Your task to perform on an android device: open app "Booking.com: Hotels and more" Image 0: 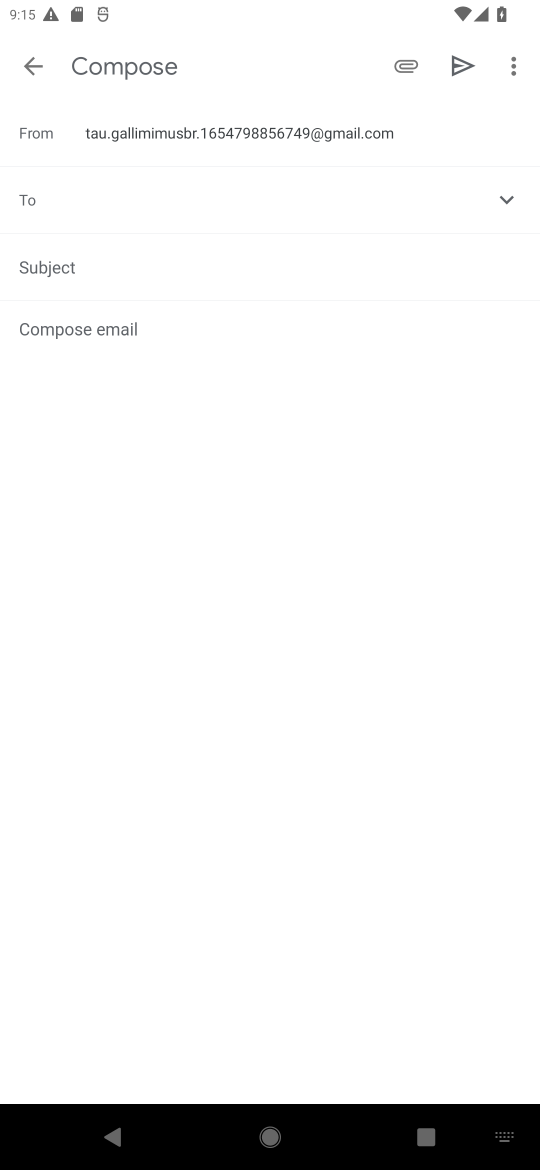
Step 0: press home button
Your task to perform on an android device: open app "Booking.com: Hotels and more" Image 1: 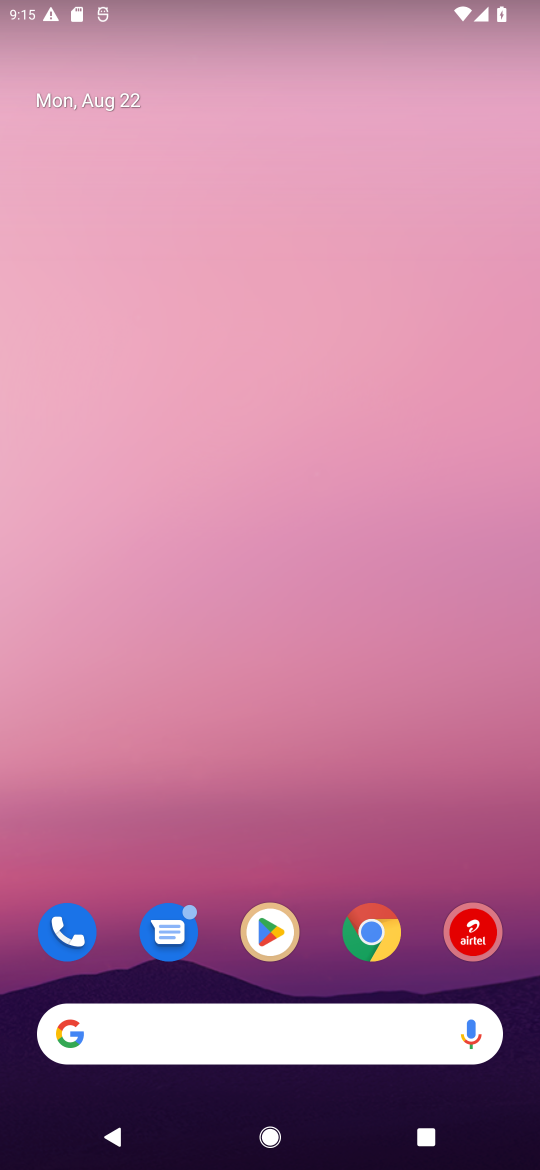
Step 1: click (272, 948)
Your task to perform on an android device: open app "Booking.com: Hotels and more" Image 2: 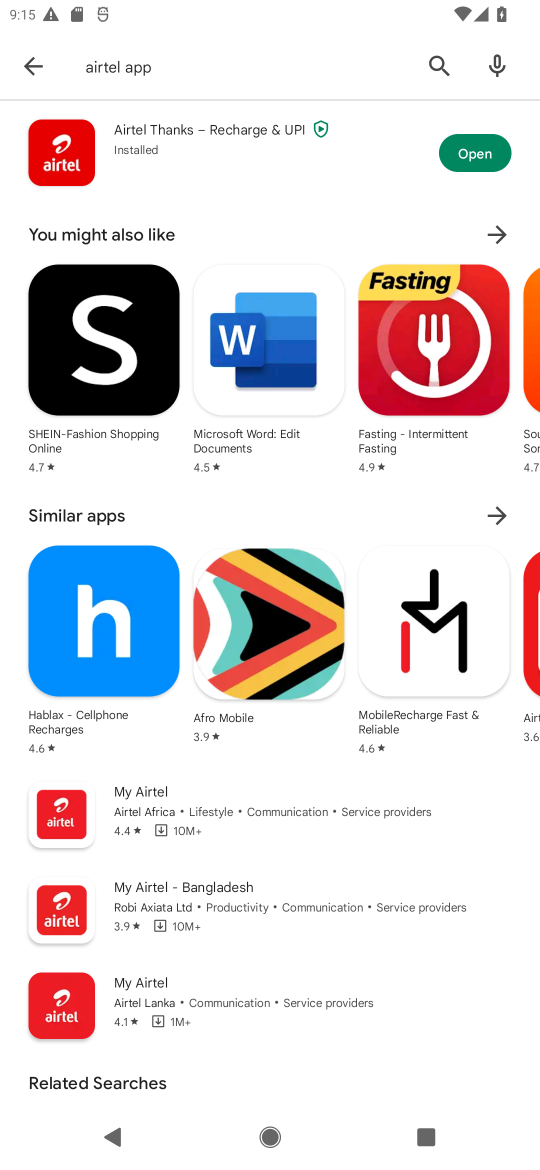
Step 2: click (456, 64)
Your task to perform on an android device: open app "Booking.com: Hotels and more" Image 3: 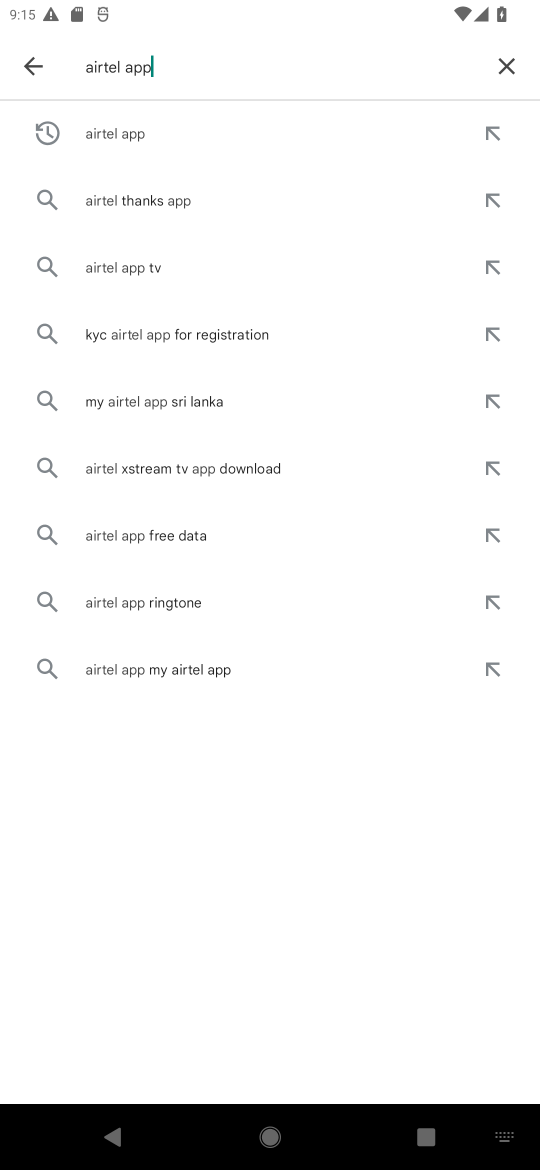
Step 3: click (489, 61)
Your task to perform on an android device: open app "Booking.com: Hotels and more" Image 4: 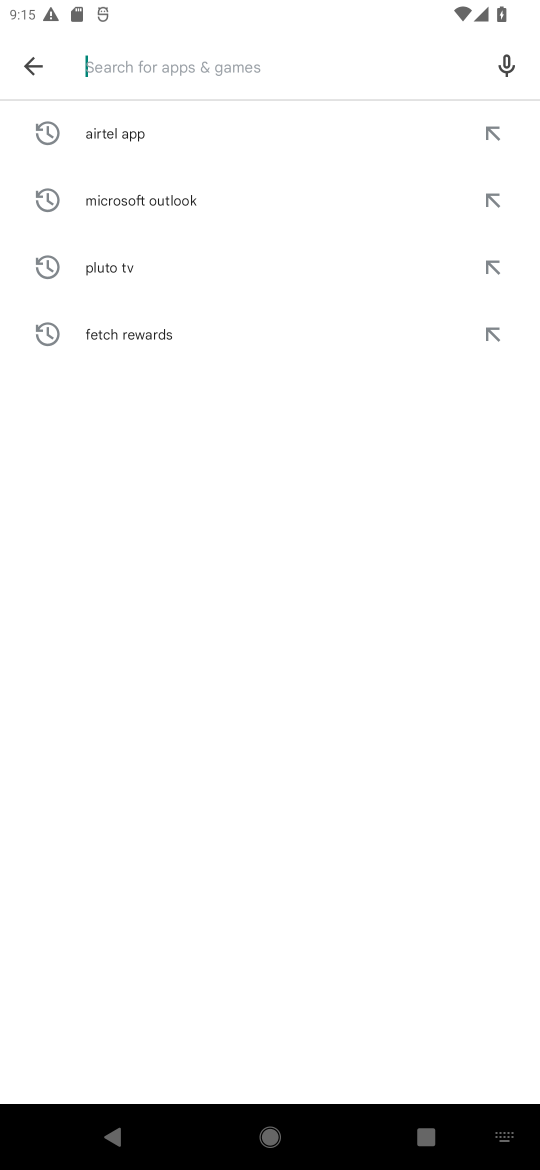
Step 4: type "booking"
Your task to perform on an android device: open app "Booking.com: Hotels and more" Image 5: 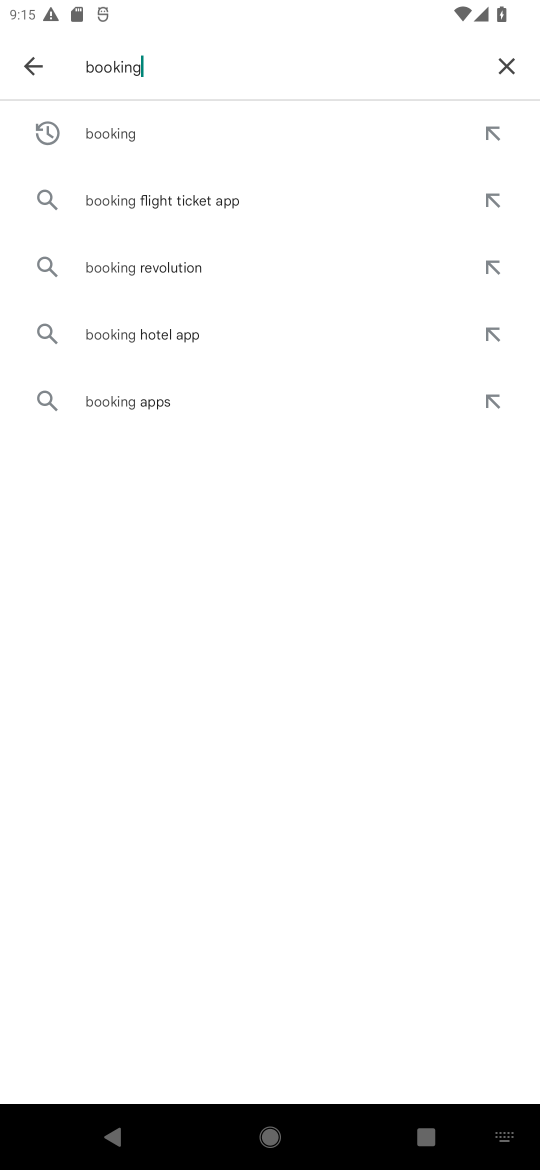
Step 5: click (192, 138)
Your task to perform on an android device: open app "Booking.com: Hotels and more" Image 6: 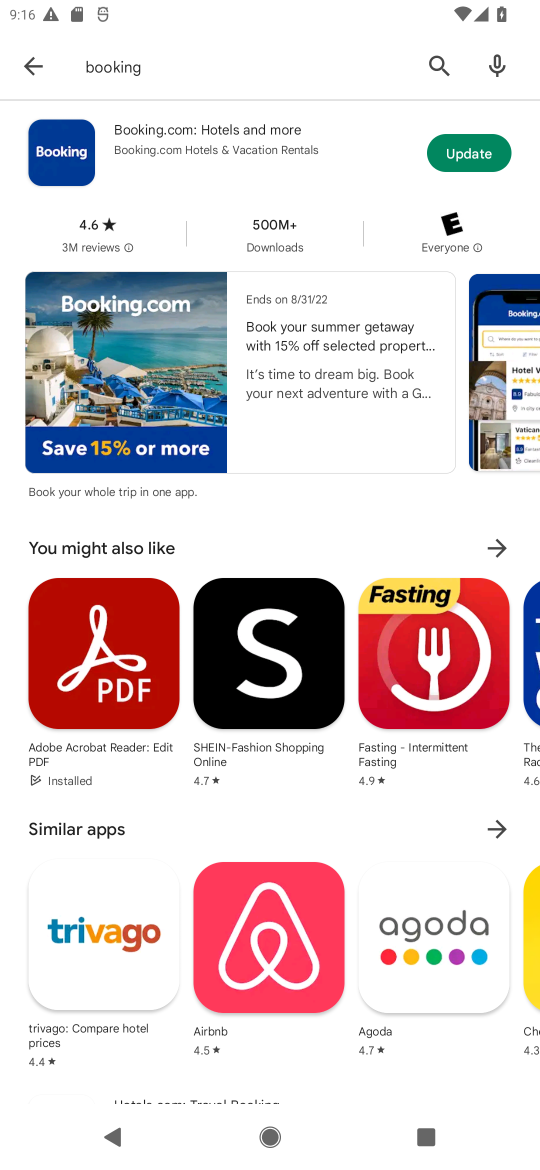
Step 6: click (470, 133)
Your task to perform on an android device: open app "Booking.com: Hotels and more" Image 7: 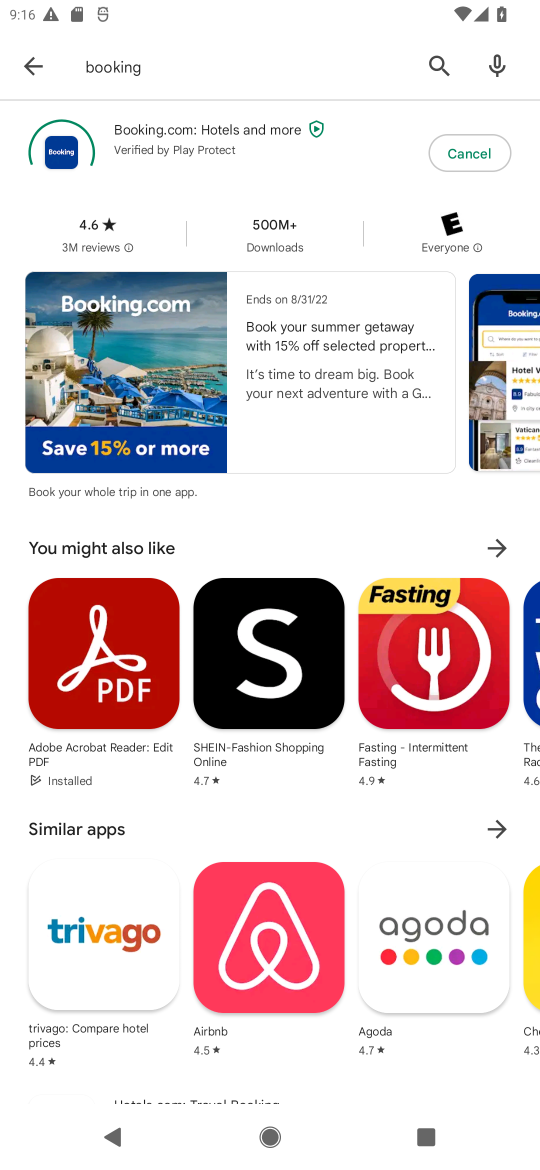
Step 7: task complete